Your task to perform on an android device: turn off picture-in-picture Image 0: 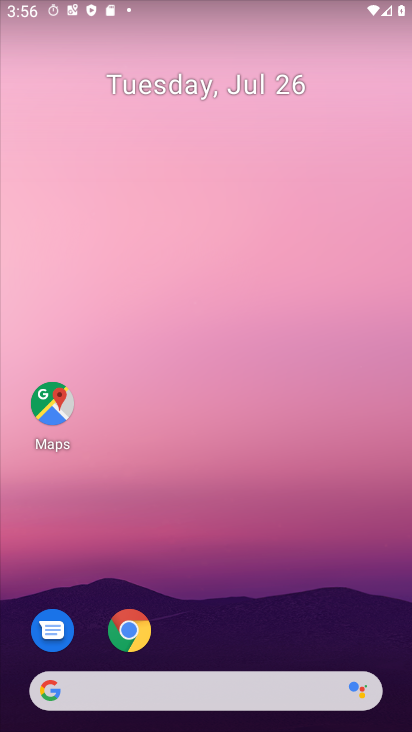
Step 0: click (144, 639)
Your task to perform on an android device: turn off picture-in-picture Image 1: 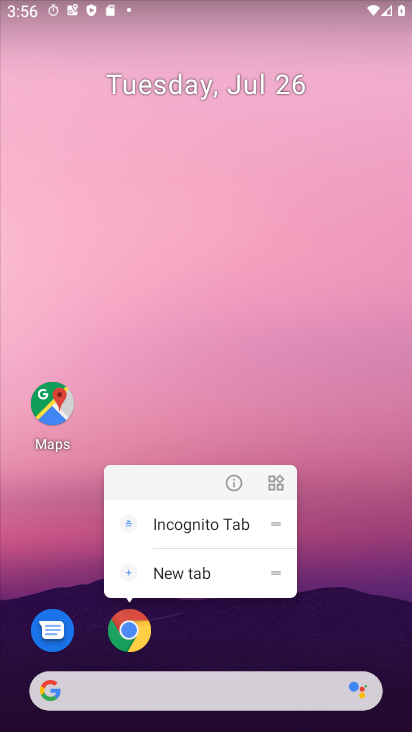
Step 1: click (232, 489)
Your task to perform on an android device: turn off picture-in-picture Image 2: 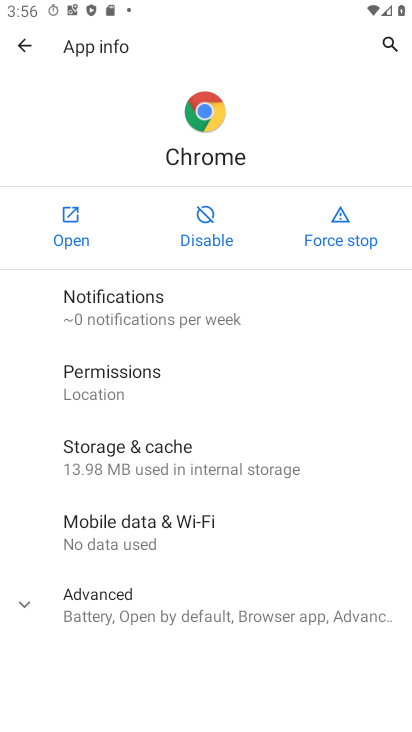
Step 2: click (230, 604)
Your task to perform on an android device: turn off picture-in-picture Image 3: 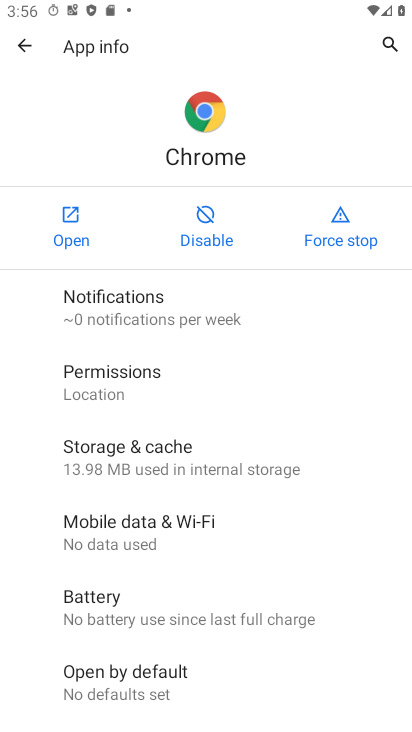
Step 3: drag from (253, 653) to (209, 211)
Your task to perform on an android device: turn off picture-in-picture Image 4: 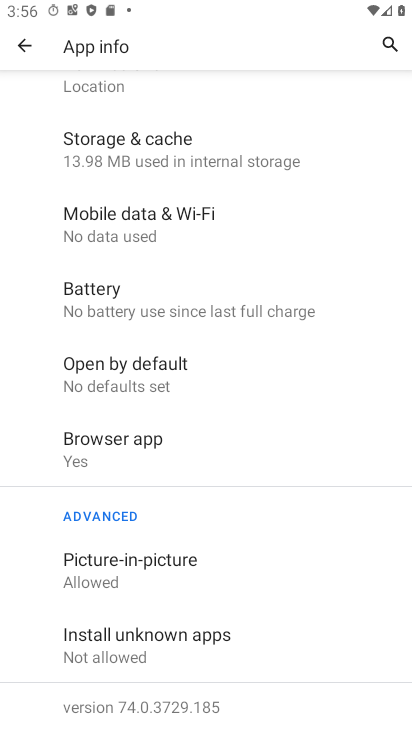
Step 4: click (209, 573)
Your task to perform on an android device: turn off picture-in-picture Image 5: 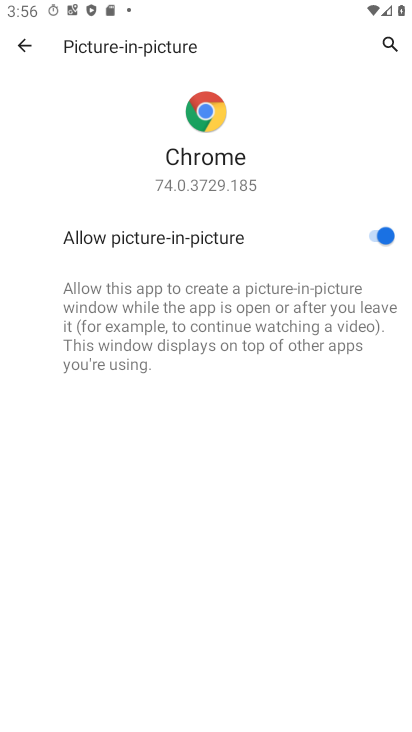
Step 5: click (377, 242)
Your task to perform on an android device: turn off picture-in-picture Image 6: 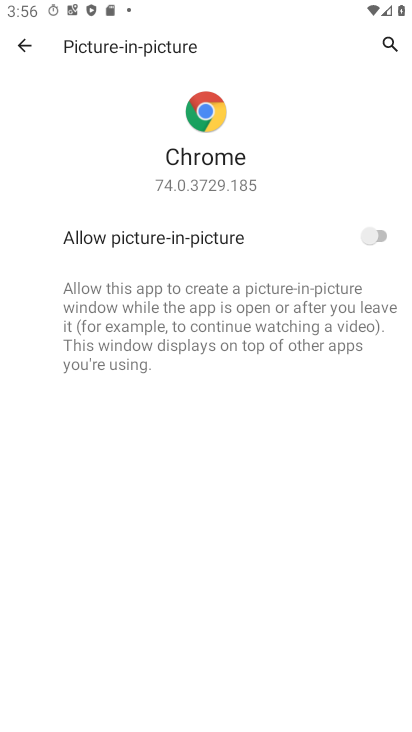
Step 6: task complete